Your task to perform on an android device: Open accessibility settings Image 0: 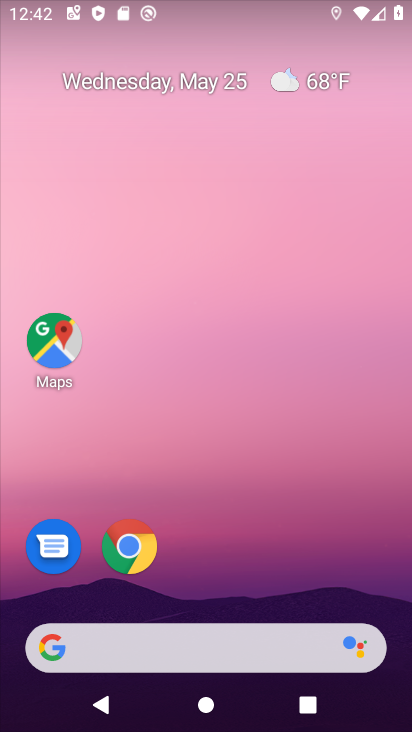
Step 0: drag from (290, 579) to (256, 99)
Your task to perform on an android device: Open accessibility settings Image 1: 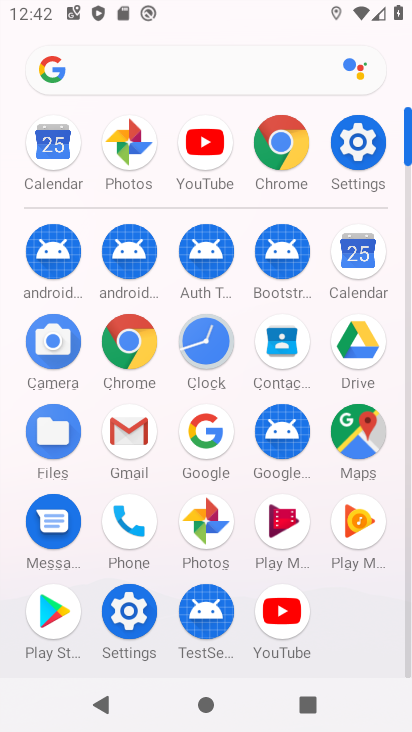
Step 1: click (359, 139)
Your task to perform on an android device: Open accessibility settings Image 2: 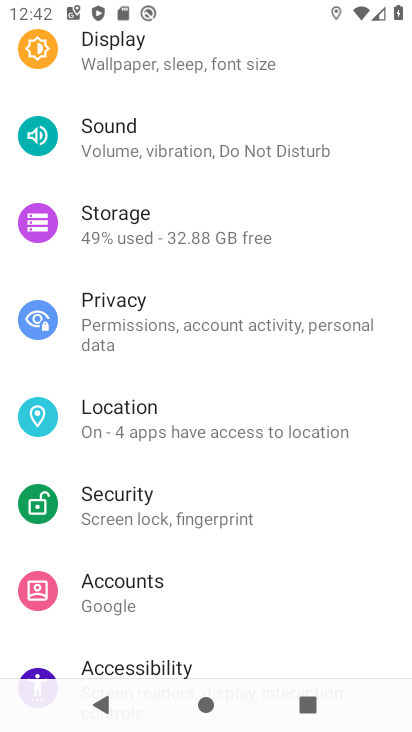
Step 2: click (165, 655)
Your task to perform on an android device: Open accessibility settings Image 3: 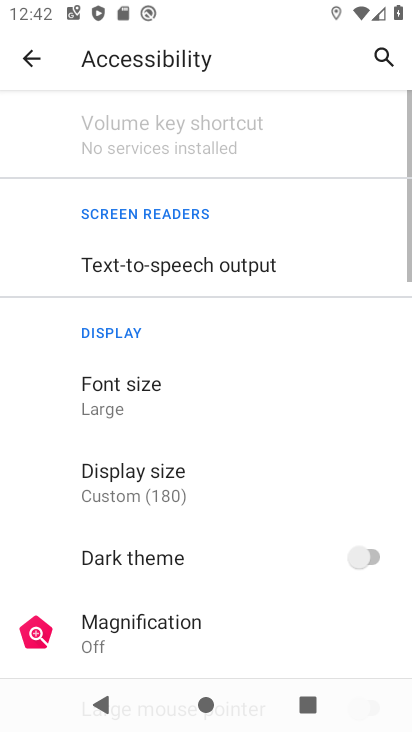
Step 3: task complete